Your task to perform on an android device: clear history in the chrome app Image 0: 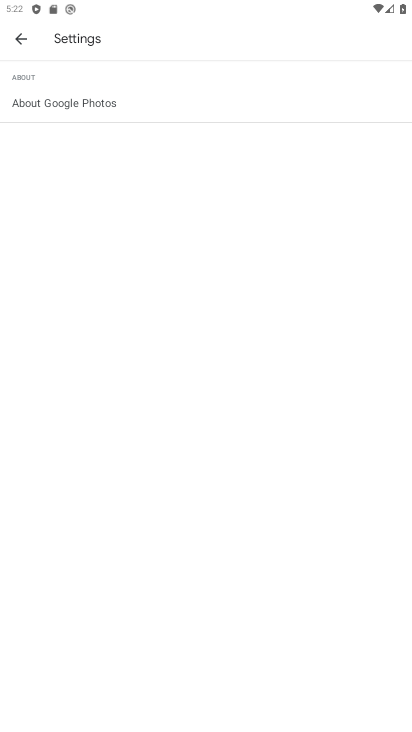
Step 0: press home button
Your task to perform on an android device: clear history in the chrome app Image 1: 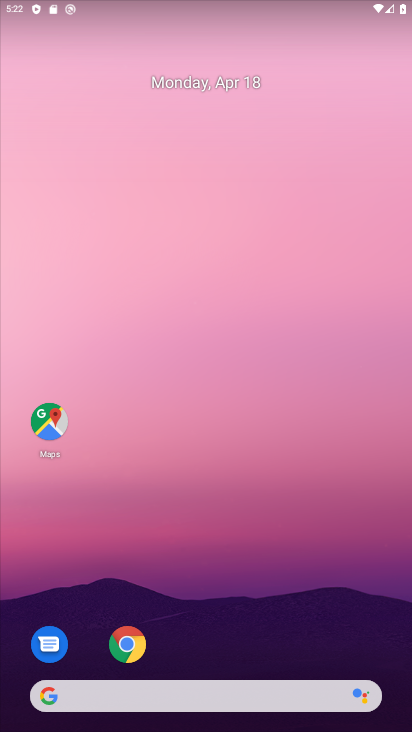
Step 1: click (124, 637)
Your task to perform on an android device: clear history in the chrome app Image 2: 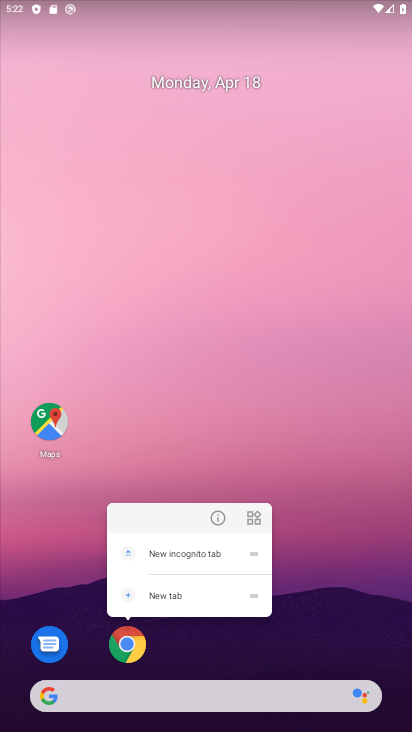
Step 2: click (123, 641)
Your task to perform on an android device: clear history in the chrome app Image 3: 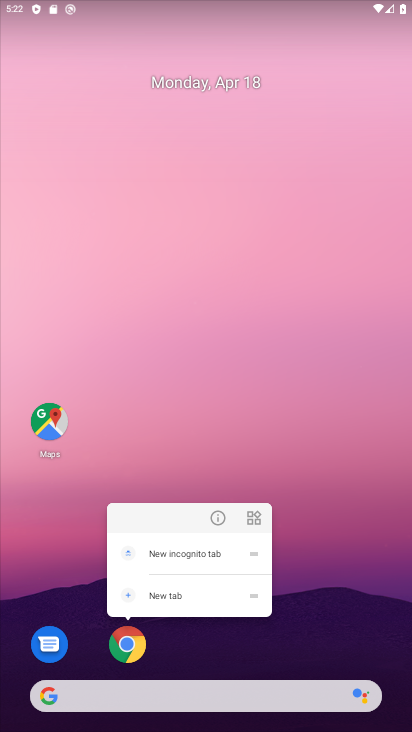
Step 3: click (123, 641)
Your task to perform on an android device: clear history in the chrome app Image 4: 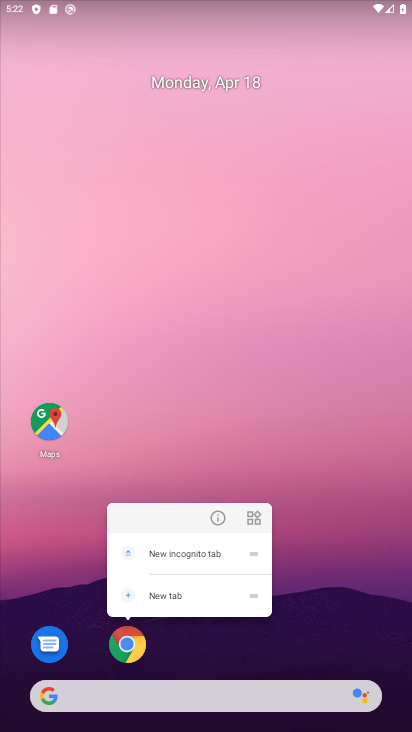
Step 4: click (127, 637)
Your task to perform on an android device: clear history in the chrome app Image 5: 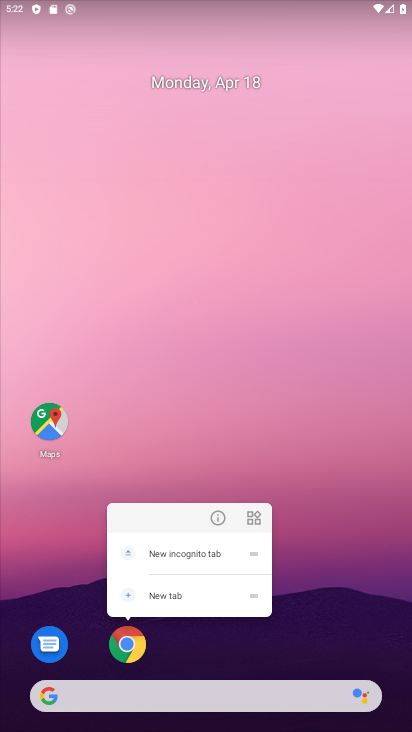
Step 5: click (127, 640)
Your task to perform on an android device: clear history in the chrome app Image 6: 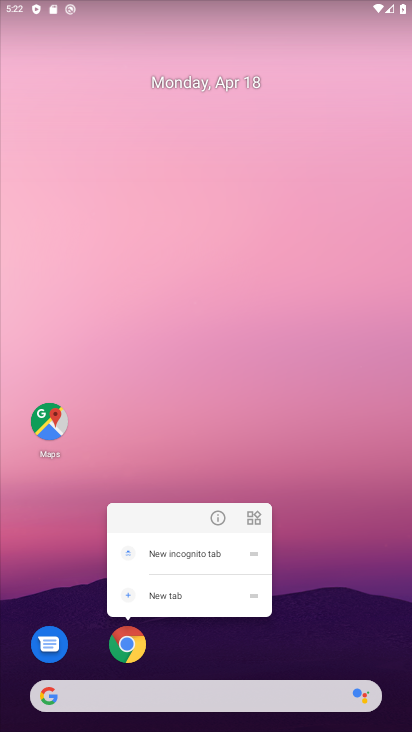
Step 6: click (127, 640)
Your task to perform on an android device: clear history in the chrome app Image 7: 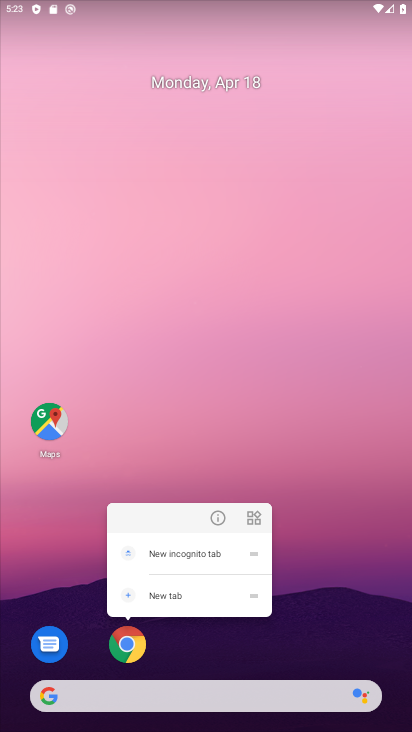
Step 7: click (319, 637)
Your task to perform on an android device: clear history in the chrome app Image 8: 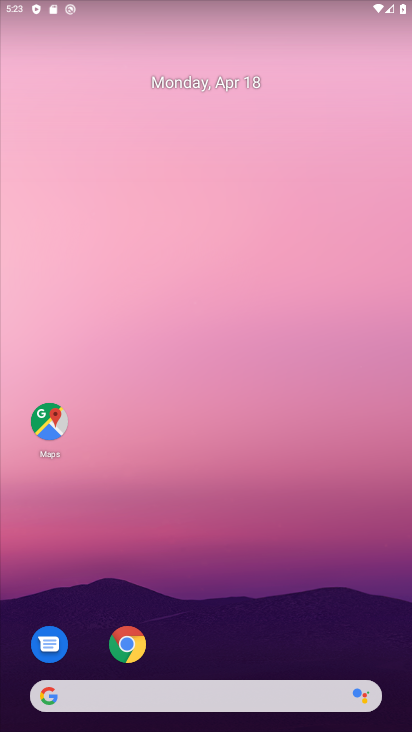
Step 8: click (127, 640)
Your task to perform on an android device: clear history in the chrome app Image 9: 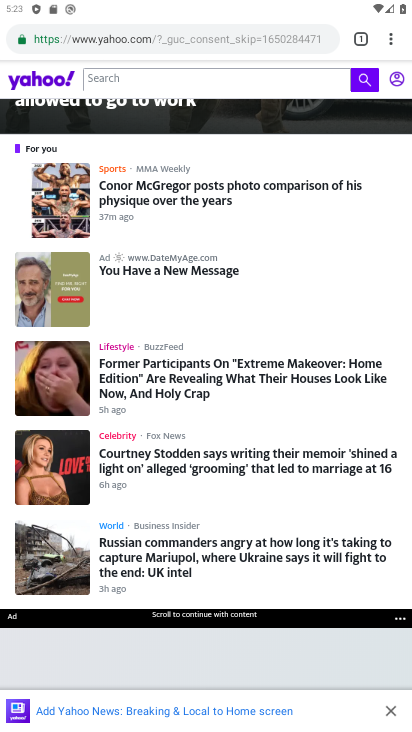
Step 9: click (390, 43)
Your task to perform on an android device: clear history in the chrome app Image 10: 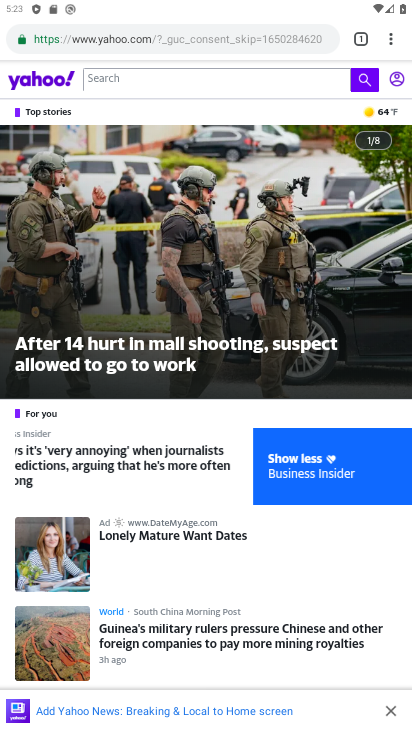
Step 10: click (388, 38)
Your task to perform on an android device: clear history in the chrome app Image 11: 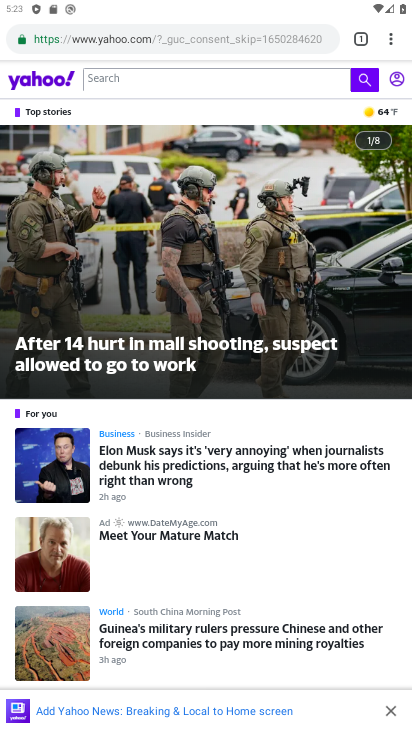
Step 11: click (391, 34)
Your task to perform on an android device: clear history in the chrome app Image 12: 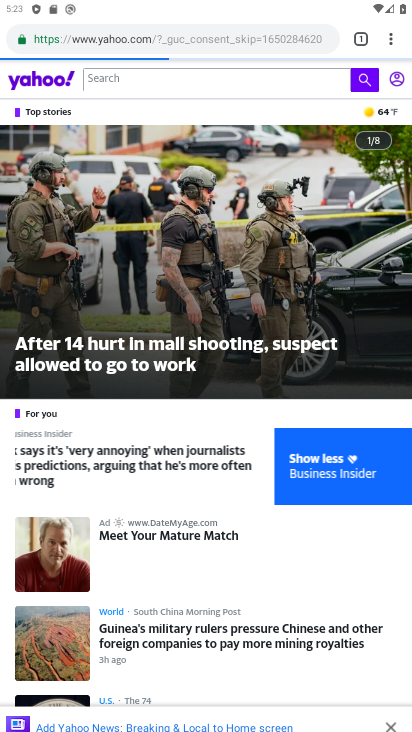
Step 12: click (391, 34)
Your task to perform on an android device: clear history in the chrome app Image 13: 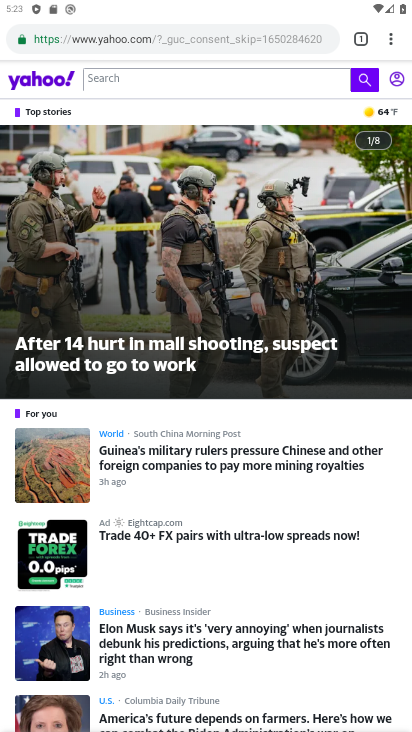
Step 13: click (391, 34)
Your task to perform on an android device: clear history in the chrome app Image 14: 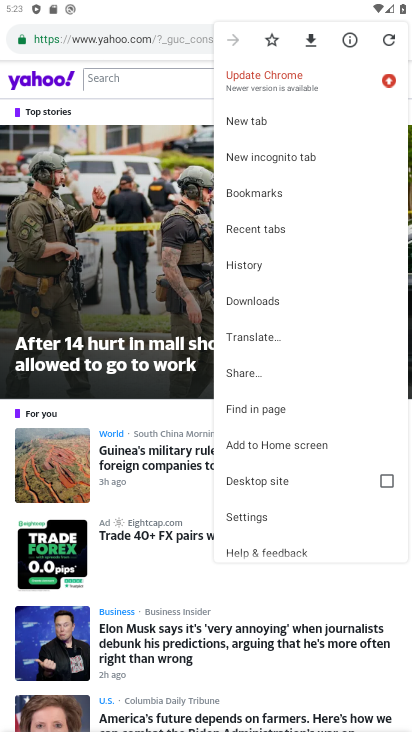
Step 14: click (267, 259)
Your task to perform on an android device: clear history in the chrome app Image 15: 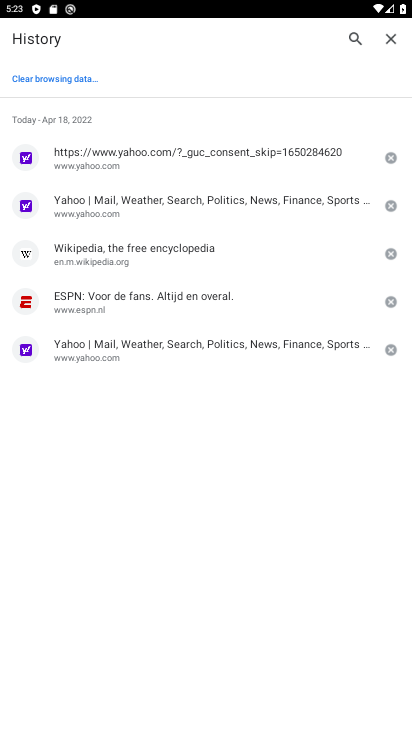
Step 15: click (57, 75)
Your task to perform on an android device: clear history in the chrome app Image 16: 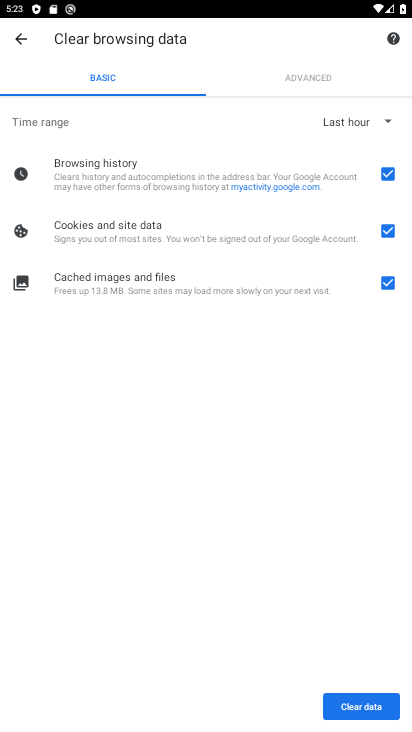
Step 16: click (357, 703)
Your task to perform on an android device: clear history in the chrome app Image 17: 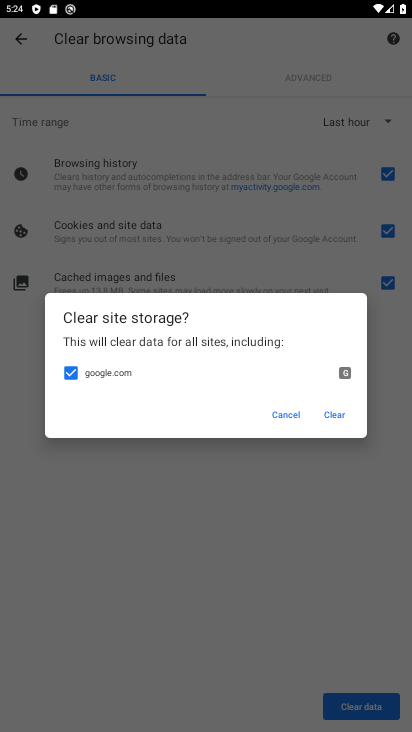
Step 17: click (332, 417)
Your task to perform on an android device: clear history in the chrome app Image 18: 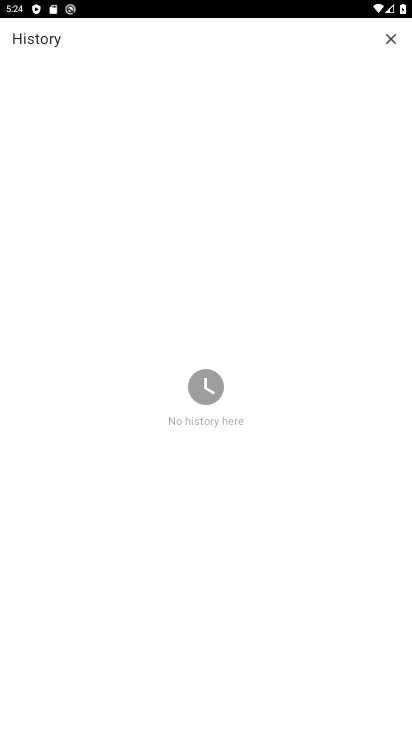
Step 18: task complete